Your task to perform on an android device: Go to display settings Image 0: 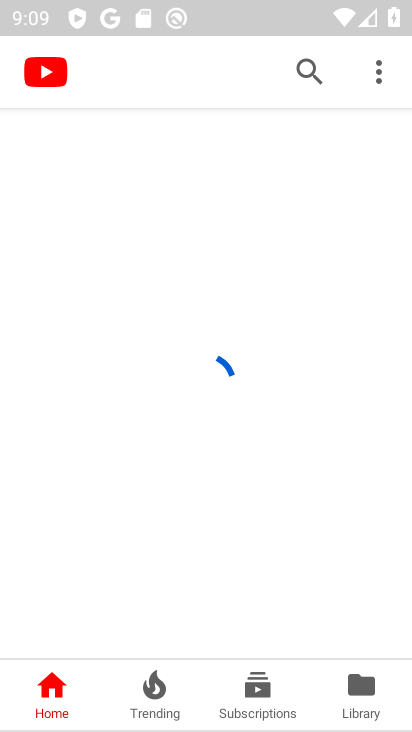
Step 0: press home button
Your task to perform on an android device: Go to display settings Image 1: 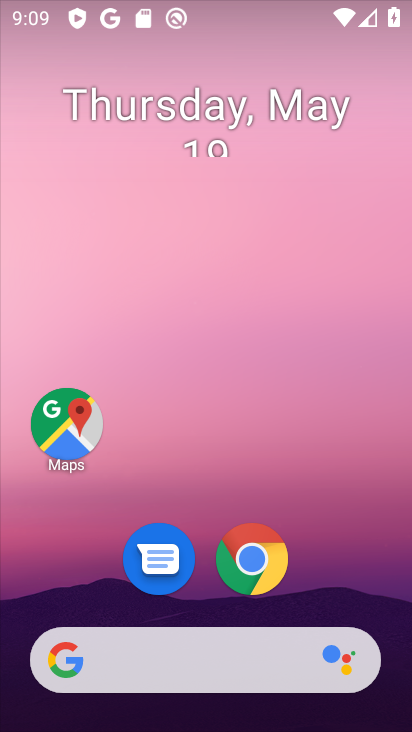
Step 1: drag from (360, 531) to (333, 108)
Your task to perform on an android device: Go to display settings Image 2: 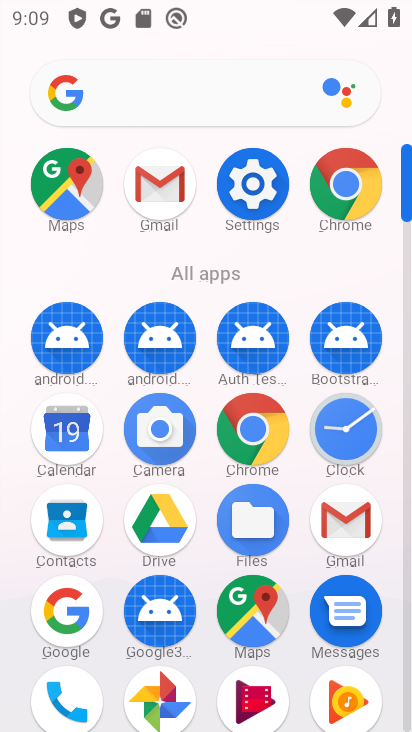
Step 2: click (251, 163)
Your task to perform on an android device: Go to display settings Image 3: 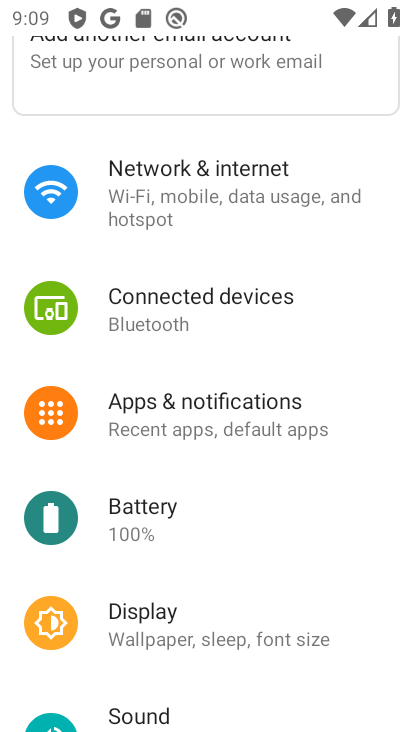
Step 3: click (207, 624)
Your task to perform on an android device: Go to display settings Image 4: 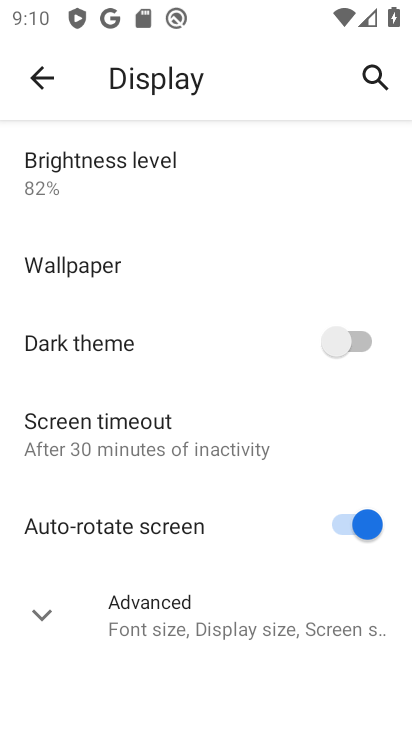
Step 4: task complete